Your task to perform on an android device: choose inbox layout in the gmail app Image 0: 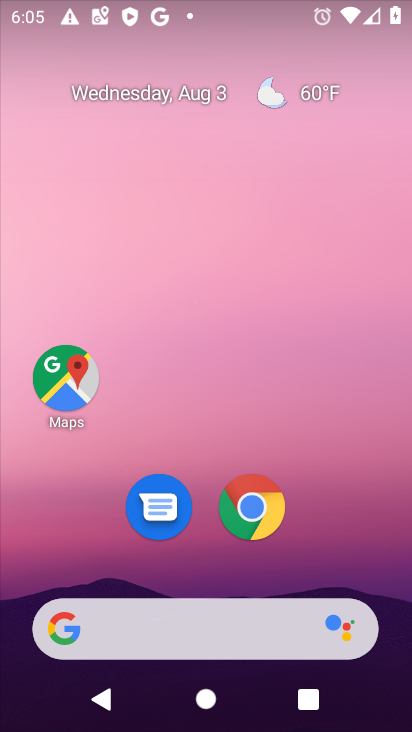
Step 0: drag from (345, 566) to (282, 50)
Your task to perform on an android device: choose inbox layout in the gmail app Image 1: 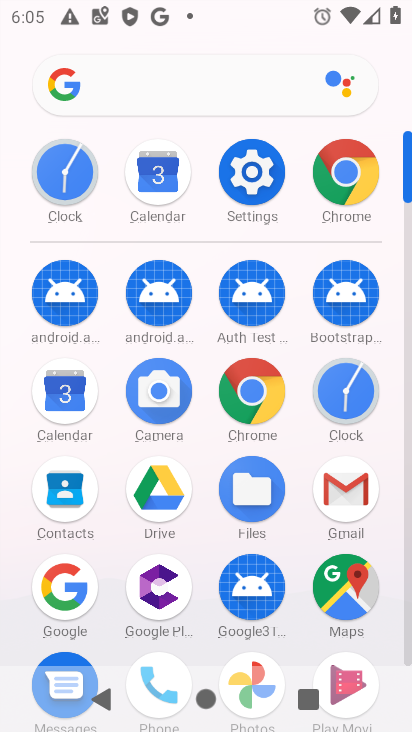
Step 1: click (357, 491)
Your task to perform on an android device: choose inbox layout in the gmail app Image 2: 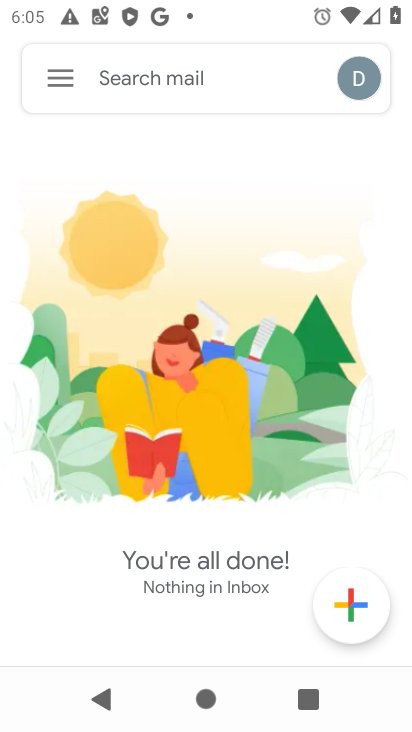
Step 2: click (59, 78)
Your task to perform on an android device: choose inbox layout in the gmail app Image 3: 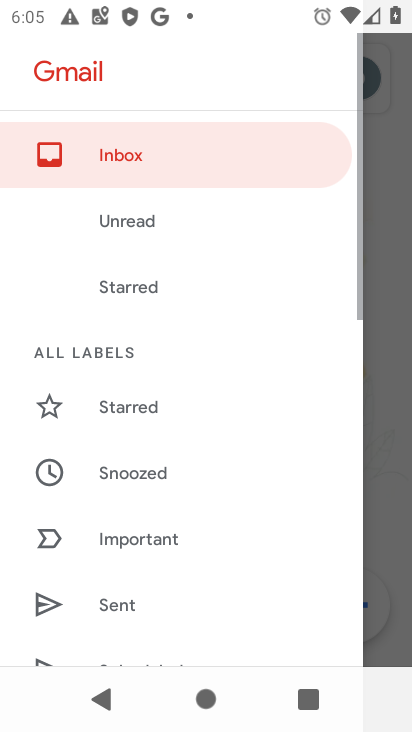
Step 3: drag from (150, 577) to (240, 79)
Your task to perform on an android device: choose inbox layout in the gmail app Image 4: 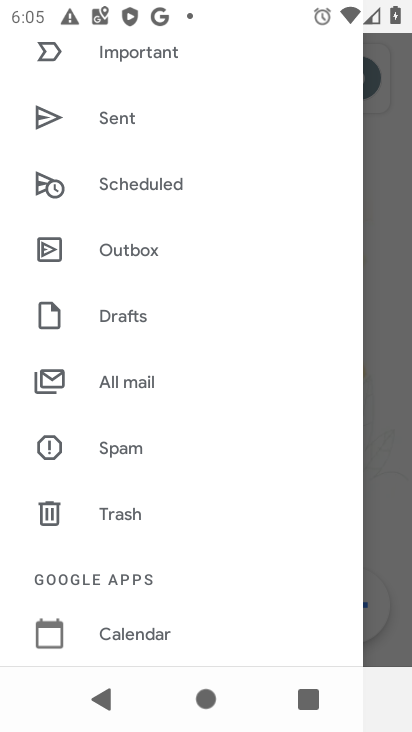
Step 4: drag from (163, 553) to (259, 196)
Your task to perform on an android device: choose inbox layout in the gmail app Image 5: 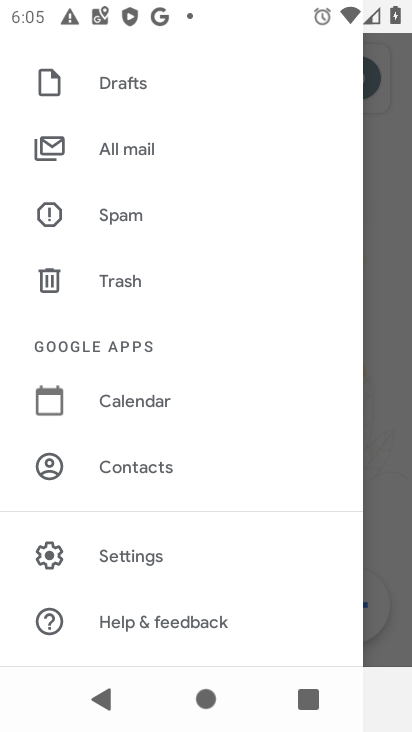
Step 5: click (143, 563)
Your task to perform on an android device: choose inbox layout in the gmail app Image 6: 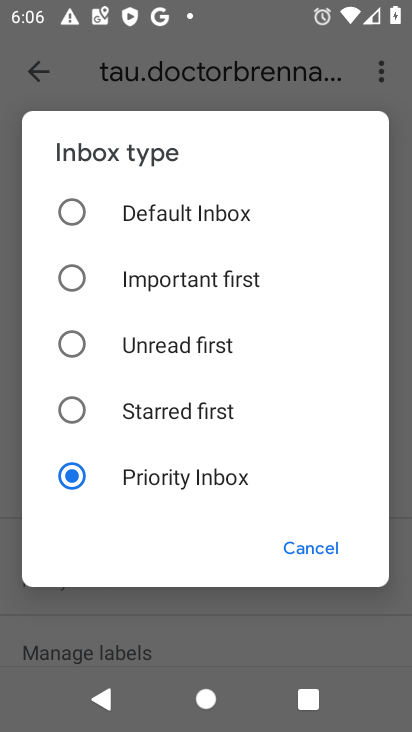
Step 6: task complete